Your task to perform on an android device: open app "YouTube Kids" Image 0: 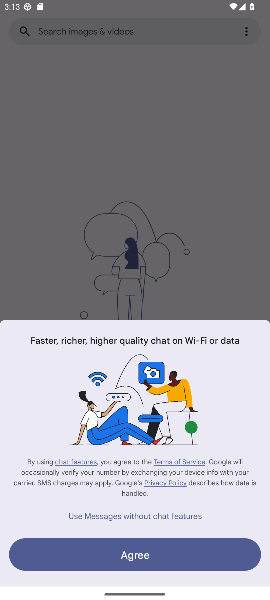
Step 0: press home button
Your task to perform on an android device: open app "YouTube Kids" Image 1: 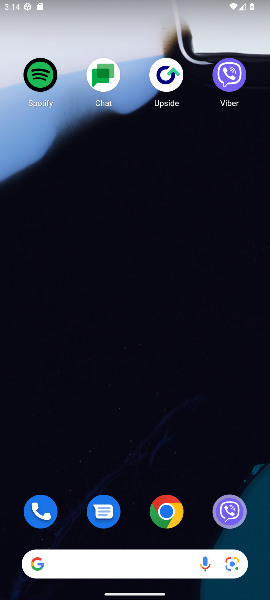
Step 1: drag from (130, 471) to (137, 197)
Your task to perform on an android device: open app "YouTube Kids" Image 2: 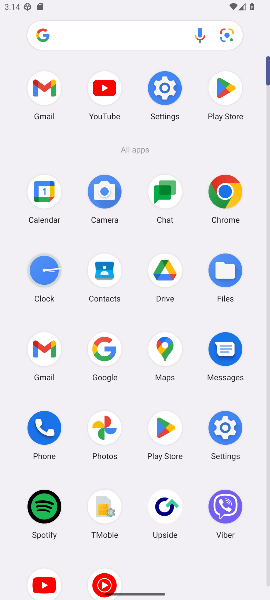
Step 2: click (223, 101)
Your task to perform on an android device: open app "YouTube Kids" Image 3: 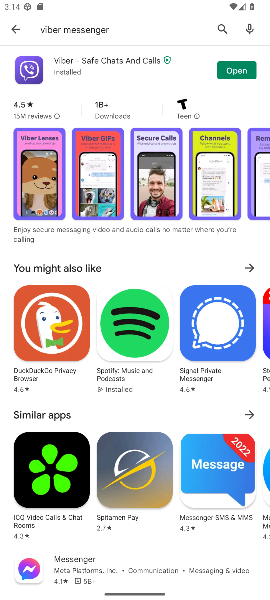
Step 3: click (13, 25)
Your task to perform on an android device: open app "YouTube Kids" Image 4: 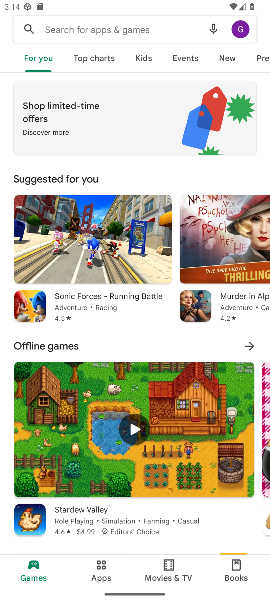
Step 4: click (83, 25)
Your task to perform on an android device: open app "YouTube Kids" Image 5: 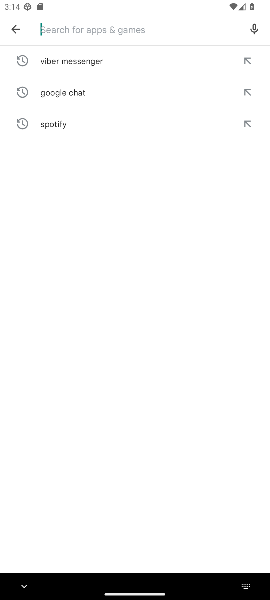
Step 5: type "youtube kids"
Your task to perform on an android device: open app "YouTube Kids" Image 6: 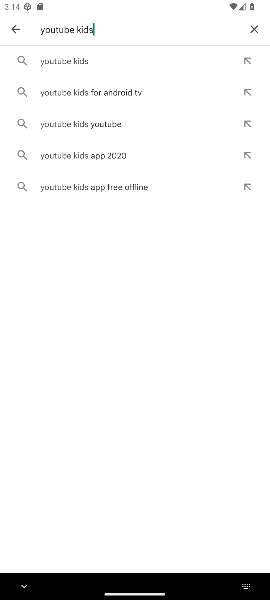
Step 6: click (78, 59)
Your task to perform on an android device: open app "YouTube Kids" Image 7: 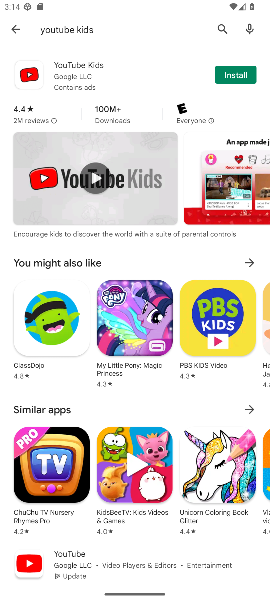
Step 7: click (232, 76)
Your task to perform on an android device: open app "YouTube Kids" Image 8: 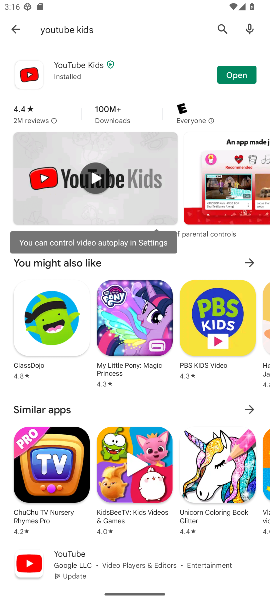
Step 8: task complete